Your task to perform on an android device: Search for pizza restaurants on Maps Image 0: 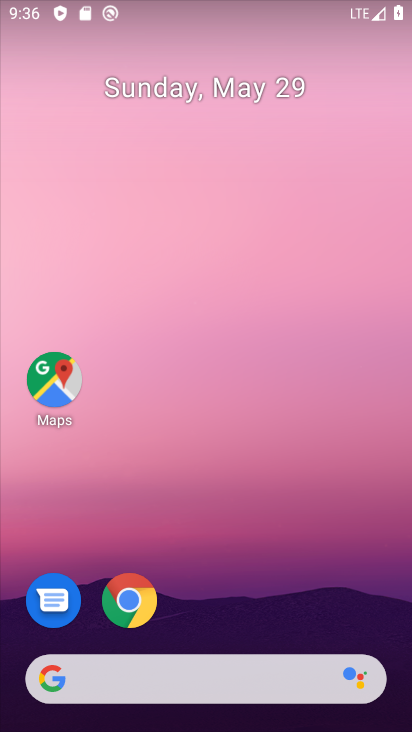
Step 0: click (48, 370)
Your task to perform on an android device: Search for pizza restaurants on Maps Image 1: 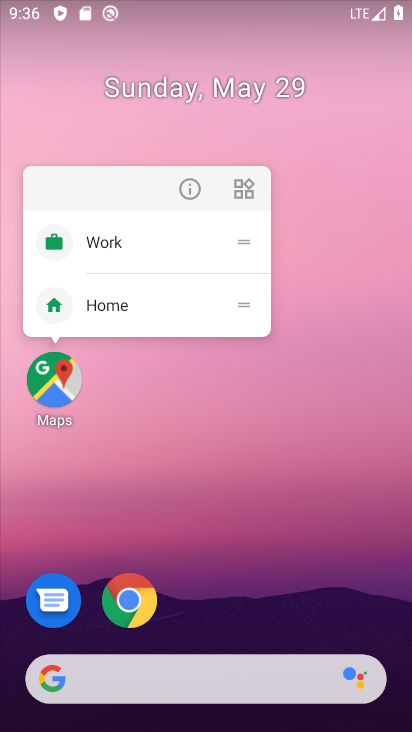
Step 1: click (278, 468)
Your task to perform on an android device: Search for pizza restaurants on Maps Image 2: 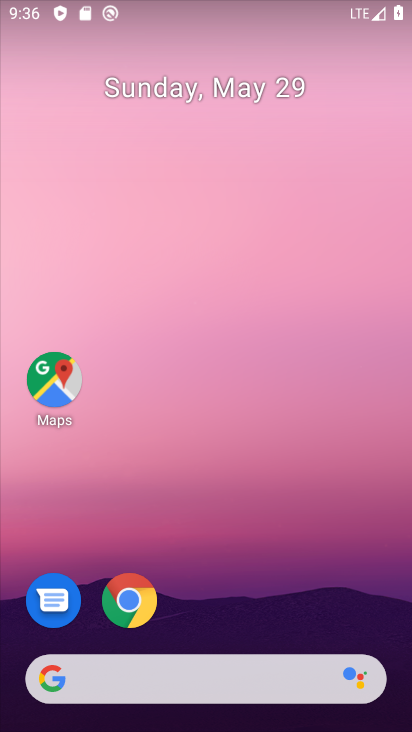
Step 2: drag from (250, 610) to (300, 96)
Your task to perform on an android device: Search for pizza restaurants on Maps Image 3: 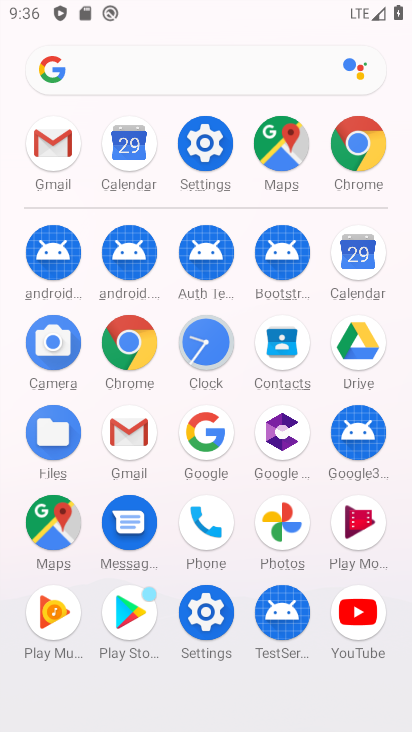
Step 3: click (57, 524)
Your task to perform on an android device: Search for pizza restaurants on Maps Image 4: 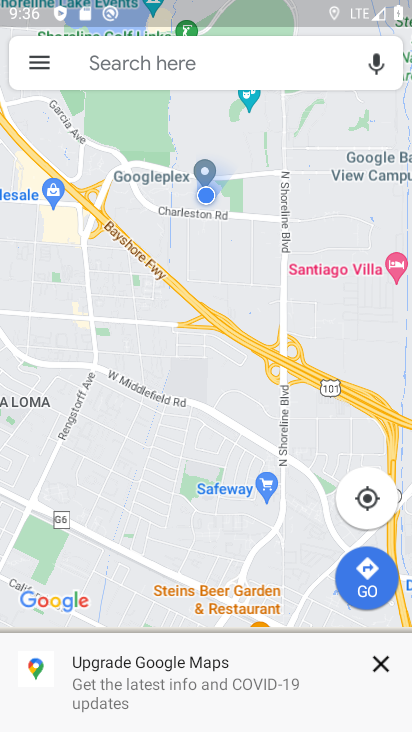
Step 4: click (192, 74)
Your task to perform on an android device: Search for pizza restaurants on Maps Image 5: 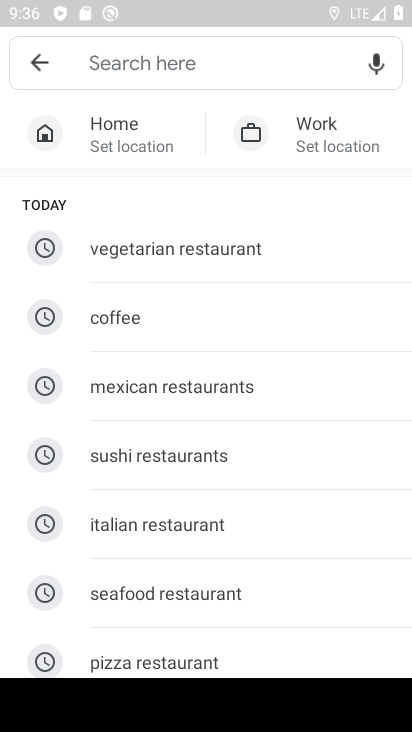
Step 5: type " pizza restaurants"
Your task to perform on an android device: Search for pizza restaurants on Maps Image 6: 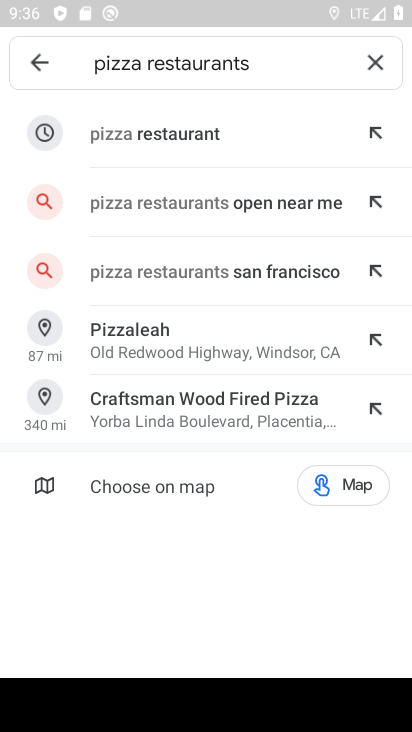
Step 6: click (150, 132)
Your task to perform on an android device: Search for pizza restaurants on Maps Image 7: 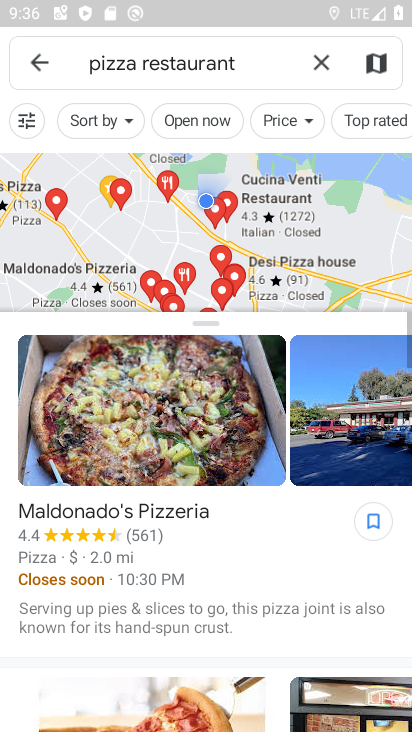
Step 7: task complete